Your task to perform on an android device: Open Google Maps Image 0: 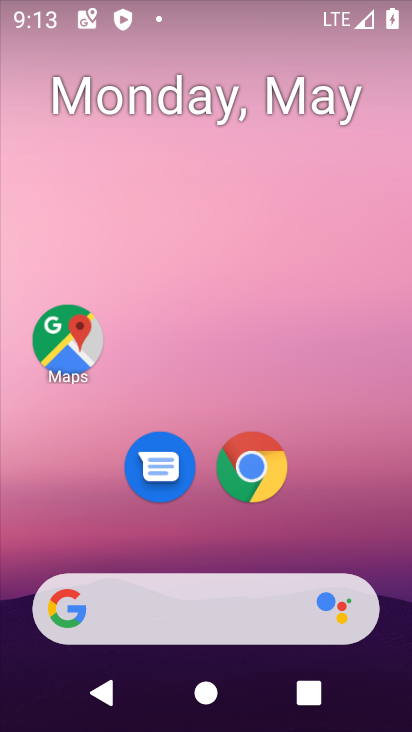
Step 0: click (71, 336)
Your task to perform on an android device: Open Google Maps Image 1: 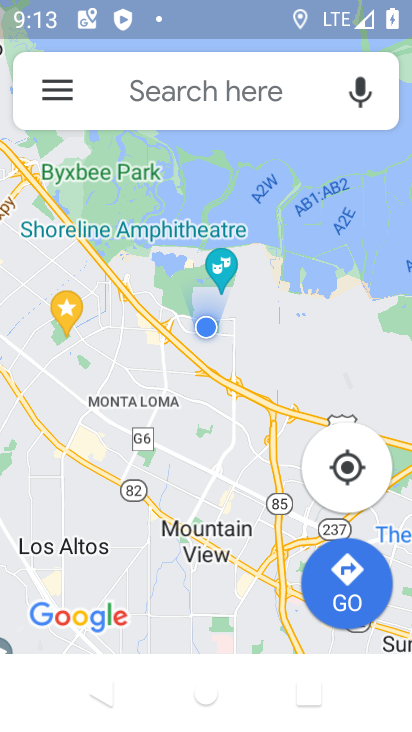
Step 1: task complete